Your task to perform on an android device: open sync settings in chrome Image 0: 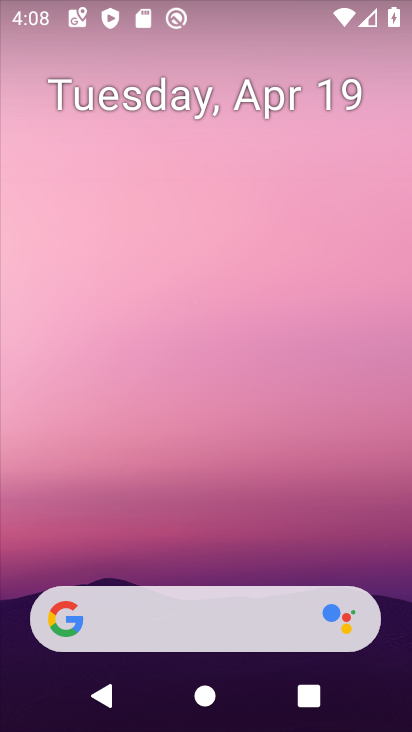
Step 0: drag from (213, 538) to (222, 105)
Your task to perform on an android device: open sync settings in chrome Image 1: 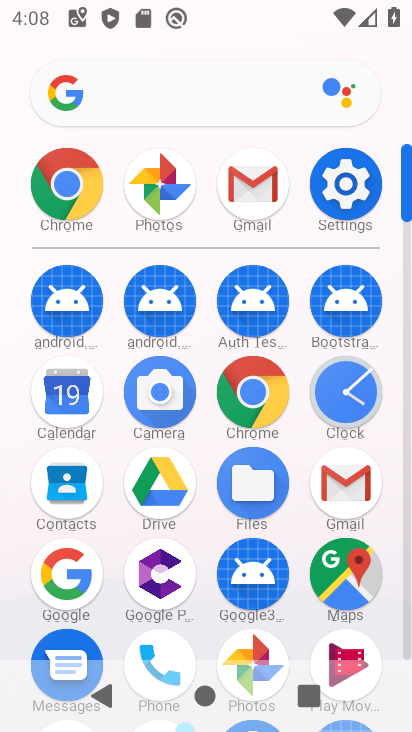
Step 1: click (72, 185)
Your task to perform on an android device: open sync settings in chrome Image 2: 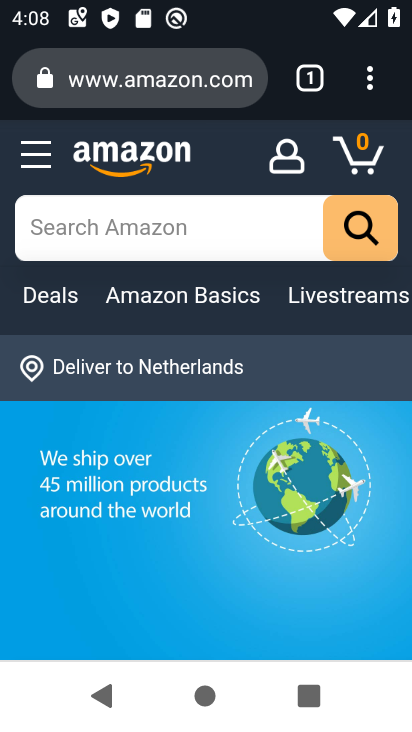
Step 2: click (378, 88)
Your task to perform on an android device: open sync settings in chrome Image 3: 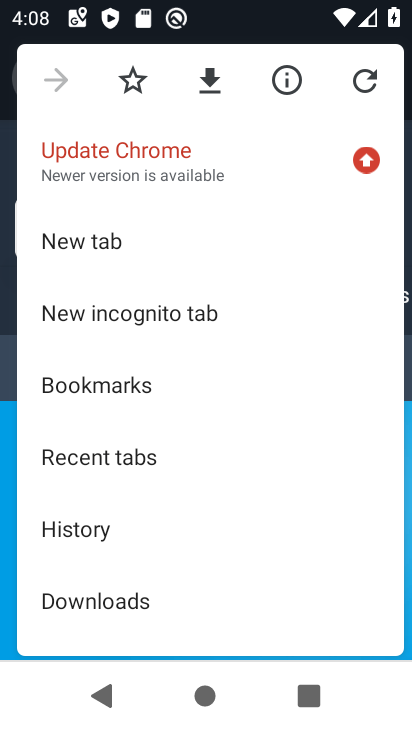
Step 3: drag from (141, 447) to (214, 349)
Your task to perform on an android device: open sync settings in chrome Image 4: 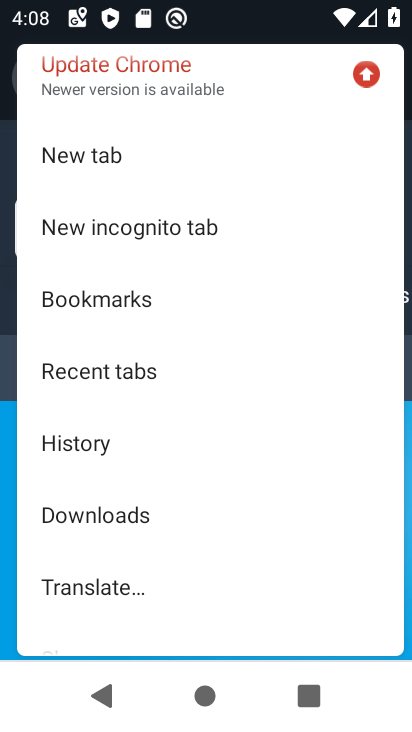
Step 4: drag from (176, 513) to (225, 385)
Your task to perform on an android device: open sync settings in chrome Image 5: 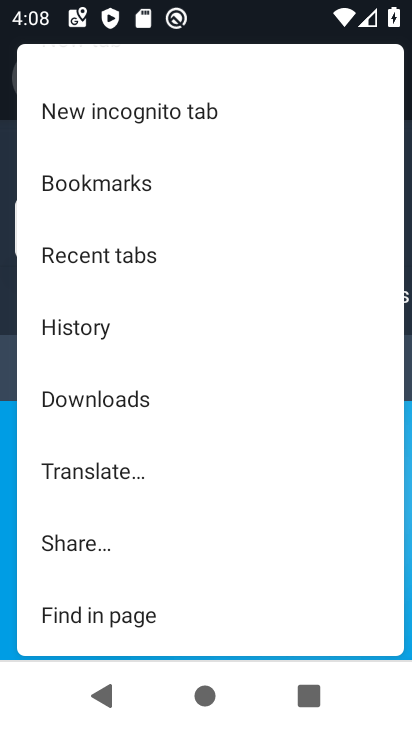
Step 5: drag from (111, 546) to (182, 429)
Your task to perform on an android device: open sync settings in chrome Image 6: 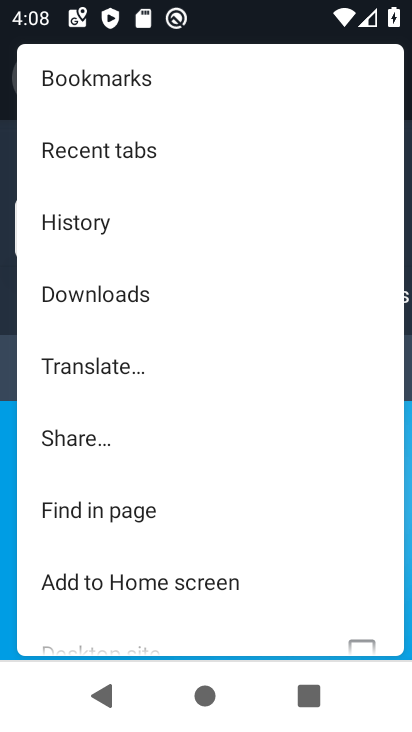
Step 6: drag from (113, 566) to (201, 465)
Your task to perform on an android device: open sync settings in chrome Image 7: 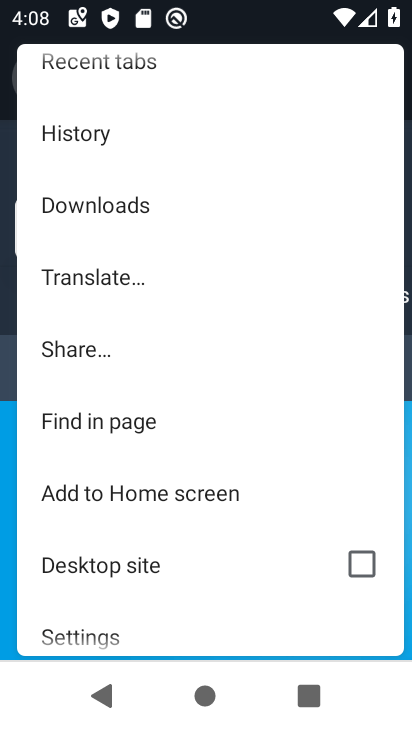
Step 7: drag from (146, 606) to (209, 535)
Your task to perform on an android device: open sync settings in chrome Image 8: 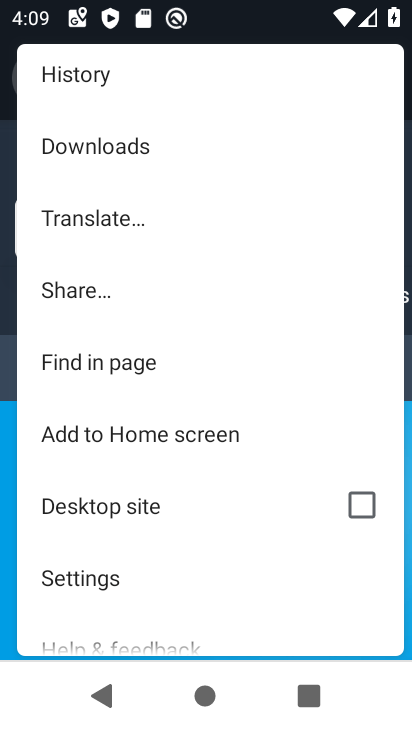
Step 8: click (95, 573)
Your task to perform on an android device: open sync settings in chrome Image 9: 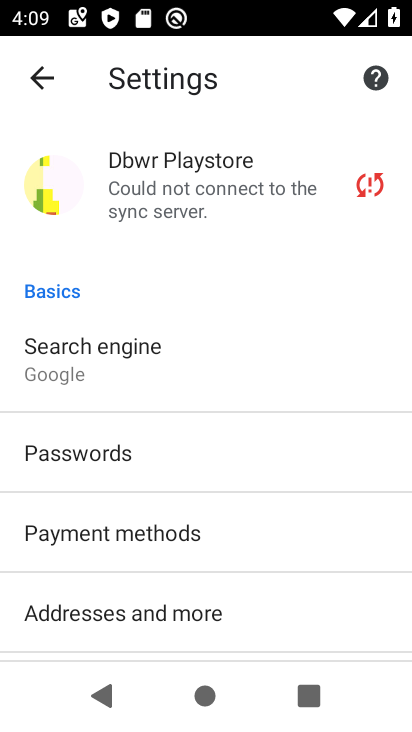
Step 9: drag from (174, 480) to (196, 392)
Your task to perform on an android device: open sync settings in chrome Image 10: 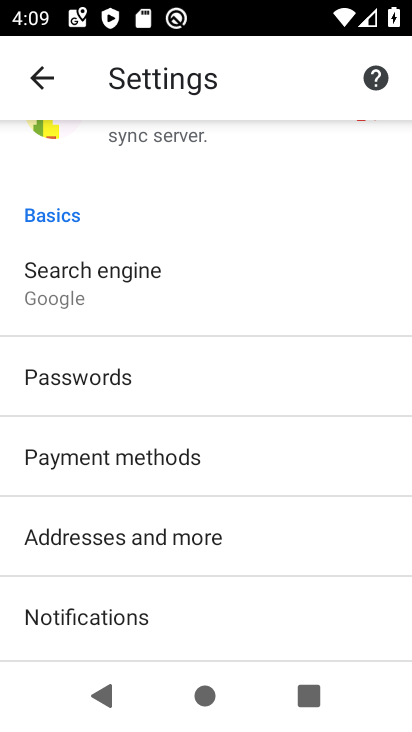
Step 10: drag from (193, 564) to (250, 461)
Your task to perform on an android device: open sync settings in chrome Image 11: 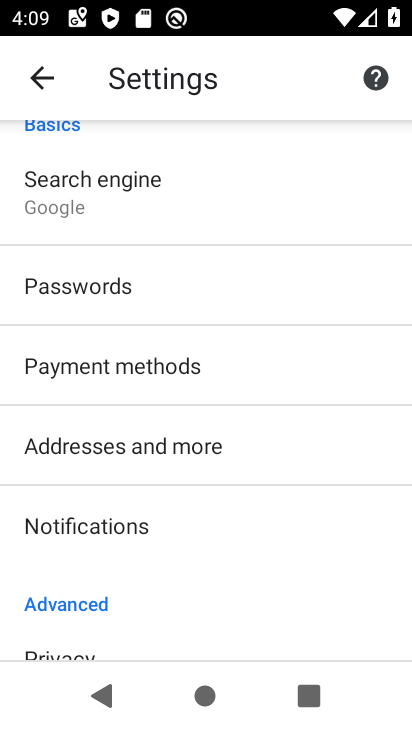
Step 11: drag from (221, 573) to (254, 451)
Your task to perform on an android device: open sync settings in chrome Image 12: 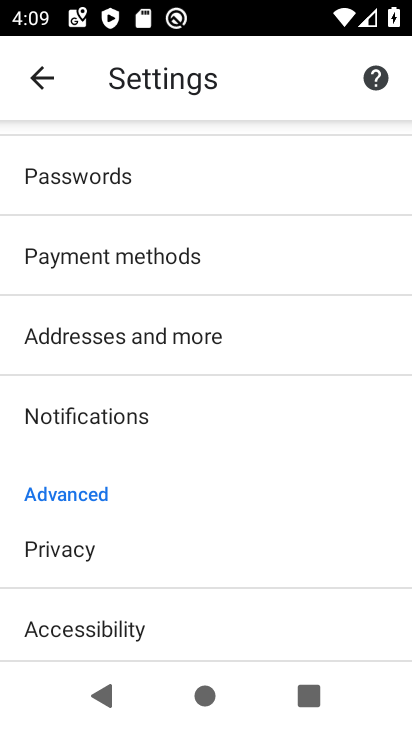
Step 12: drag from (171, 579) to (226, 484)
Your task to perform on an android device: open sync settings in chrome Image 13: 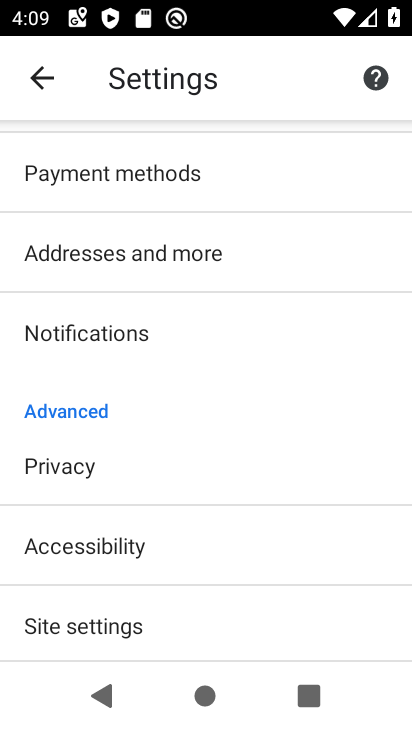
Step 13: click (67, 621)
Your task to perform on an android device: open sync settings in chrome Image 14: 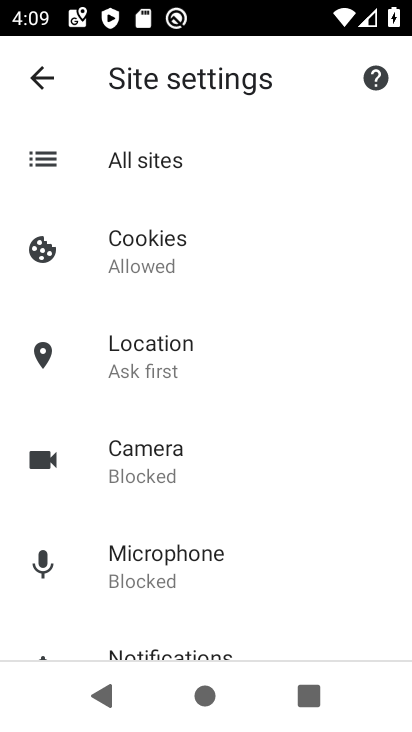
Step 14: drag from (248, 510) to (286, 389)
Your task to perform on an android device: open sync settings in chrome Image 15: 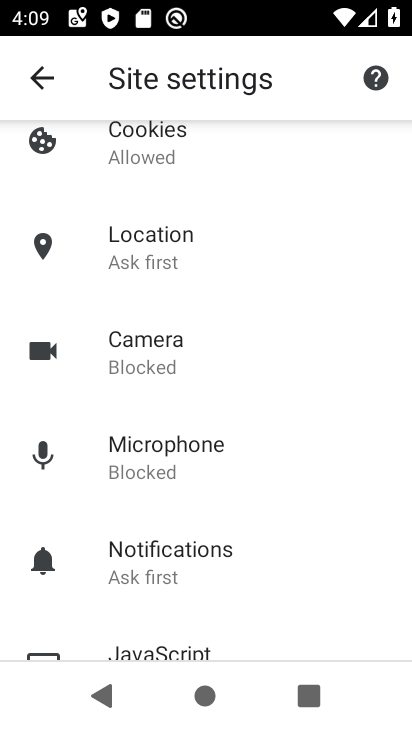
Step 15: drag from (217, 500) to (257, 403)
Your task to perform on an android device: open sync settings in chrome Image 16: 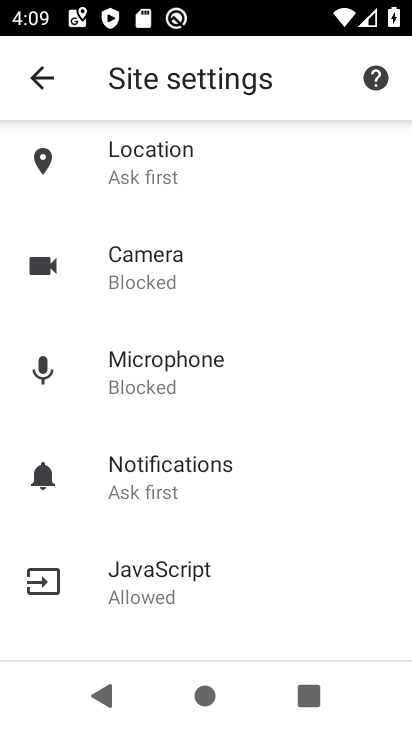
Step 16: drag from (206, 534) to (253, 434)
Your task to perform on an android device: open sync settings in chrome Image 17: 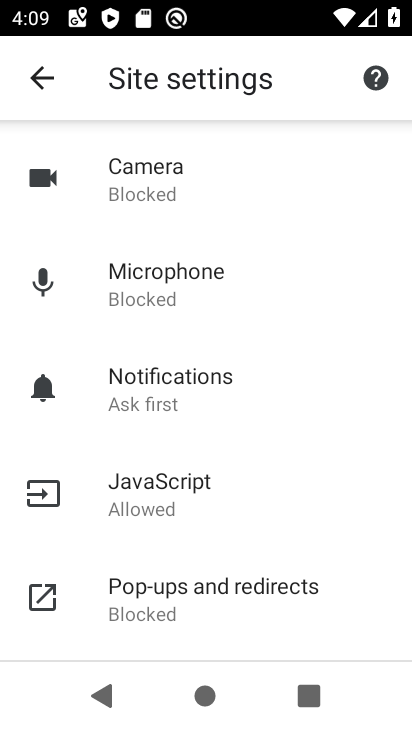
Step 17: drag from (198, 537) to (259, 442)
Your task to perform on an android device: open sync settings in chrome Image 18: 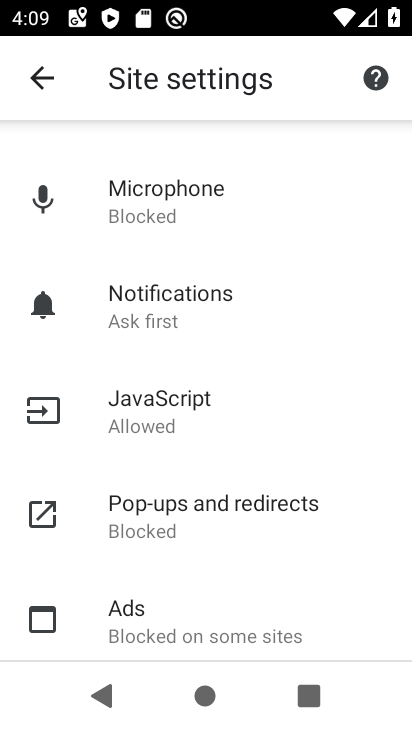
Step 18: drag from (194, 566) to (277, 446)
Your task to perform on an android device: open sync settings in chrome Image 19: 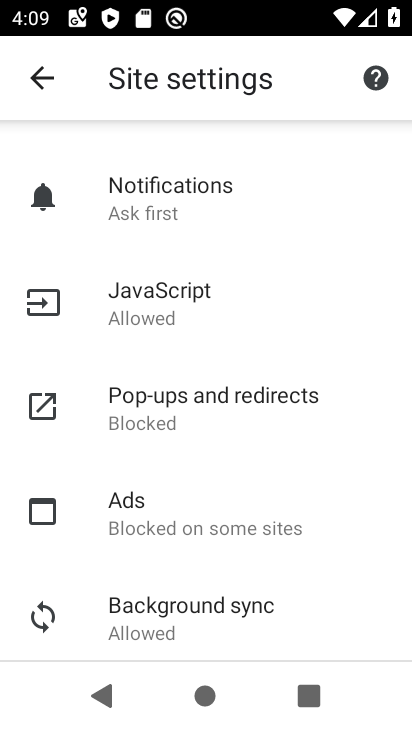
Step 19: drag from (211, 551) to (301, 449)
Your task to perform on an android device: open sync settings in chrome Image 20: 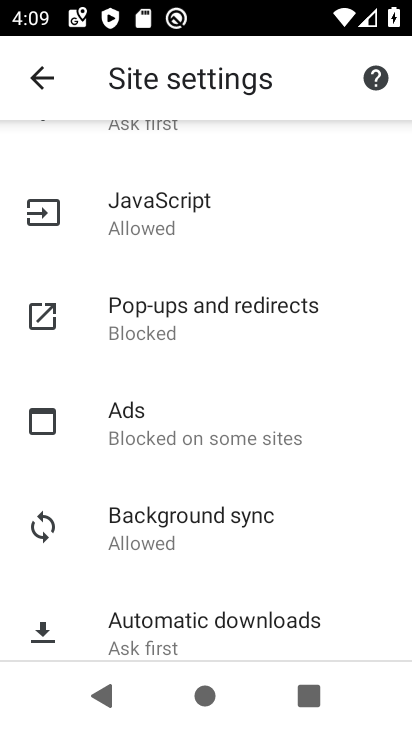
Step 20: click (227, 516)
Your task to perform on an android device: open sync settings in chrome Image 21: 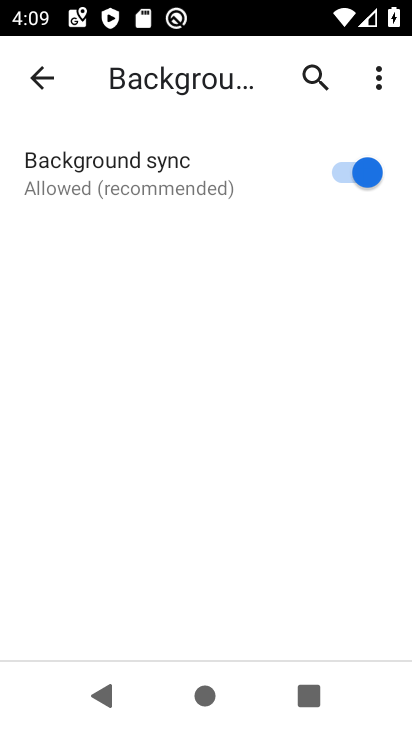
Step 21: task complete